Your task to perform on an android device: check out phone information Image 0: 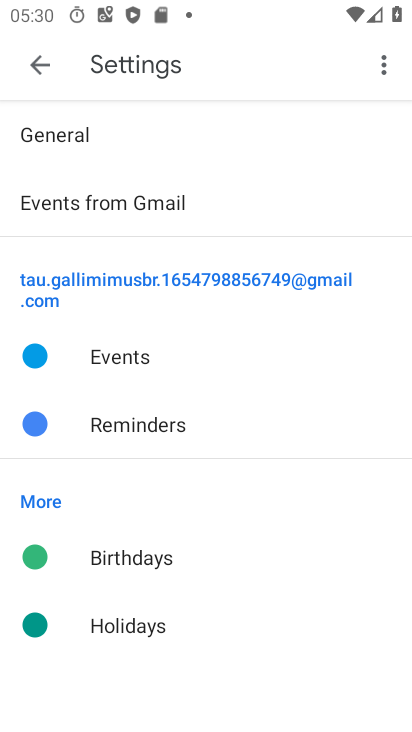
Step 0: press home button
Your task to perform on an android device: check out phone information Image 1: 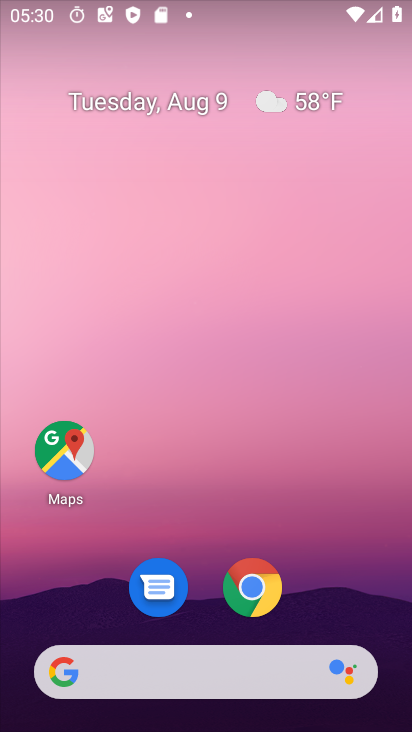
Step 1: drag from (206, 647) to (267, 162)
Your task to perform on an android device: check out phone information Image 2: 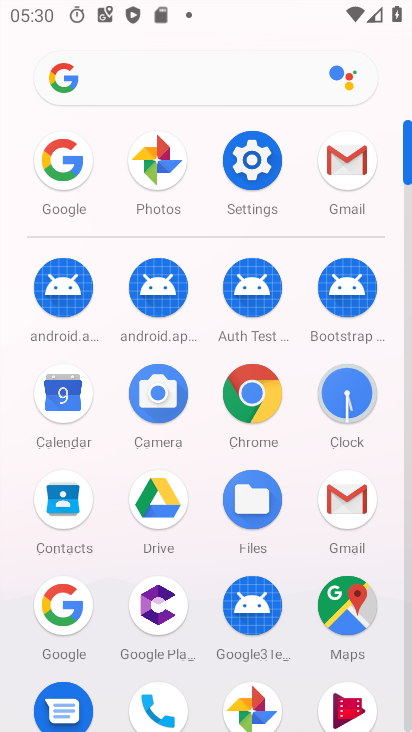
Step 2: click (249, 134)
Your task to perform on an android device: check out phone information Image 3: 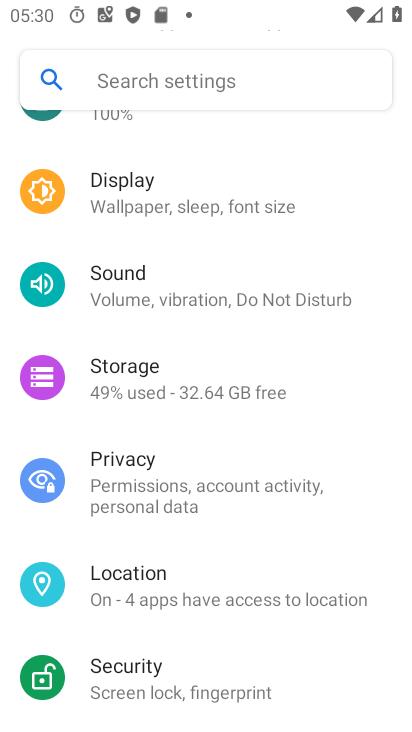
Step 3: drag from (322, 512) to (294, 45)
Your task to perform on an android device: check out phone information Image 4: 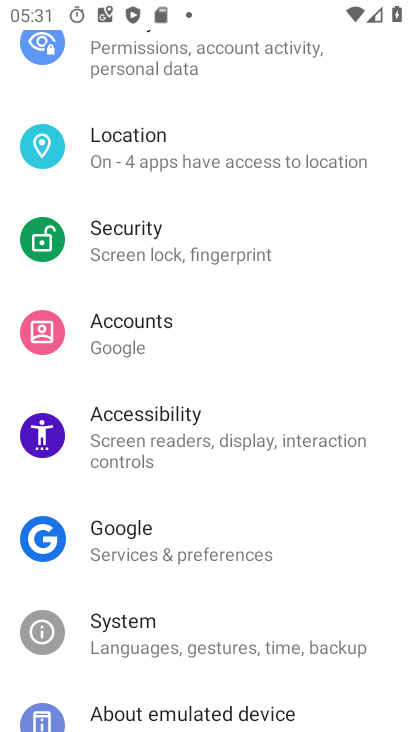
Step 4: drag from (286, 516) to (278, 92)
Your task to perform on an android device: check out phone information Image 5: 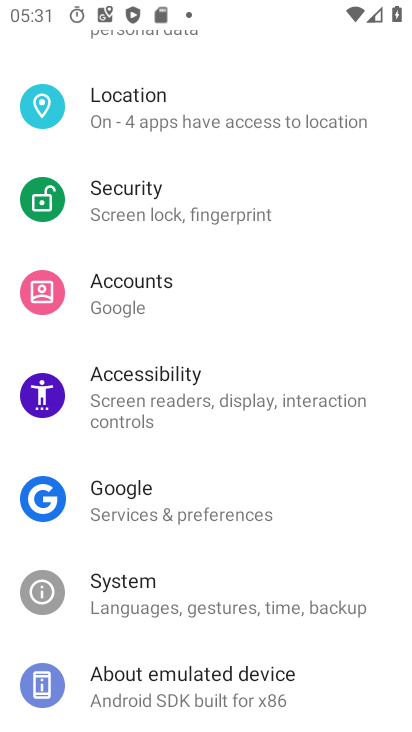
Step 5: click (287, 674)
Your task to perform on an android device: check out phone information Image 6: 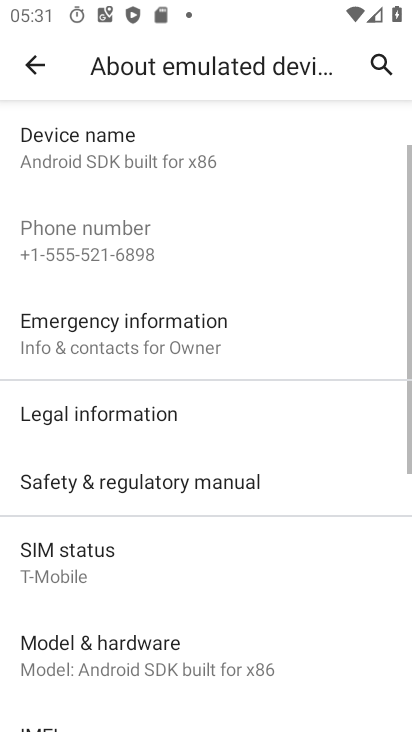
Step 6: task complete